Your task to perform on an android device: Open Maps and search for coffee Image 0: 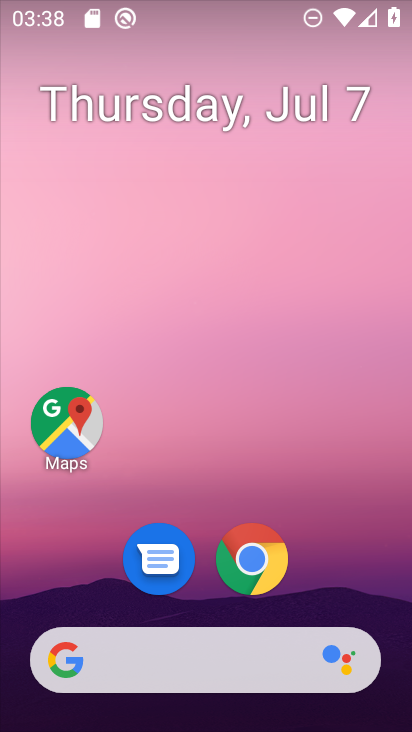
Step 0: drag from (378, 581) to (378, 189)
Your task to perform on an android device: Open Maps and search for coffee Image 1: 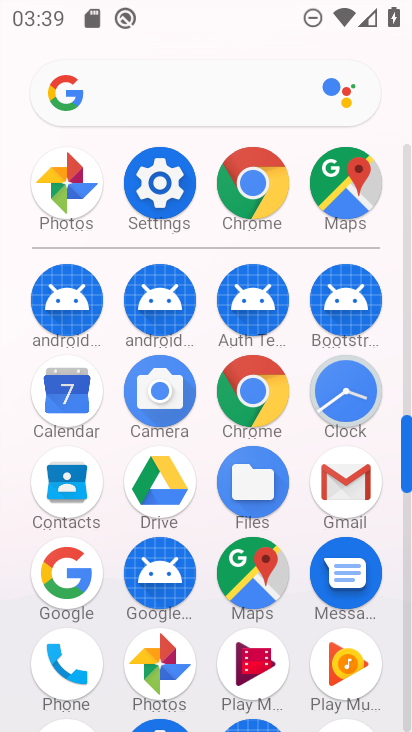
Step 1: click (251, 574)
Your task to perform on an android device: Open Maps and search for coffee Image 2: 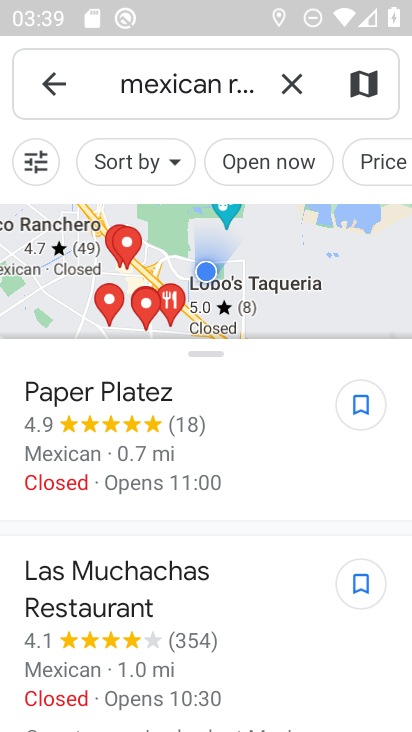
Step 2: press back button
Your task to perform on an android device: Open Maps and search for coffee Image 3: 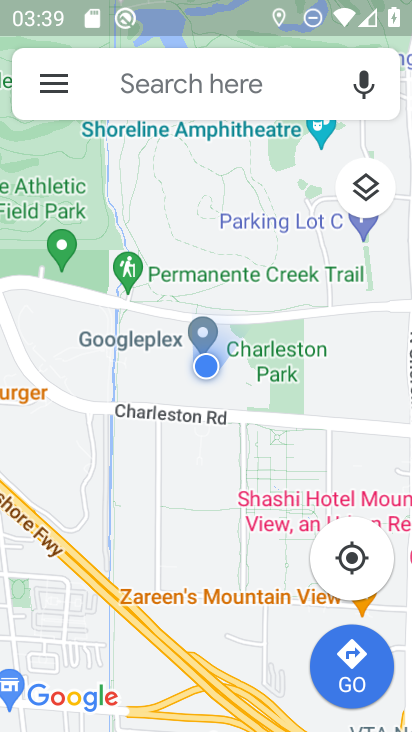
Step 3: click (184, 104)
Your task to perform on an android device: Open Maps and search for coffee Image 4: 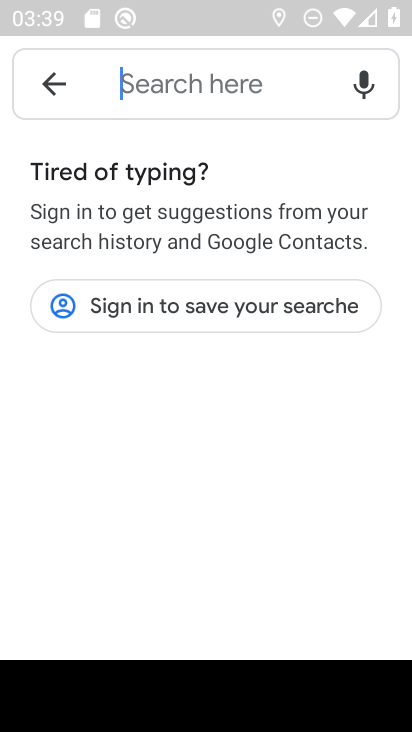
Step 4: type "coffee"
Your task to perform on an android device: Open Maps and search for coffee Image 5: 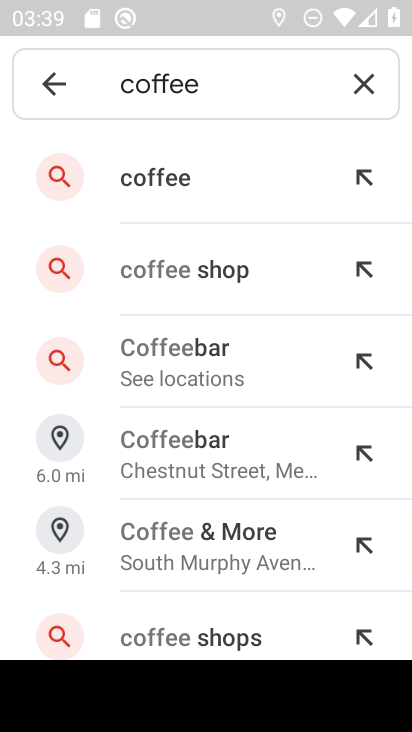
Step 5: click (246, 193)
Your task to perform on an android device: Open Maps and search for coffee Image 6: 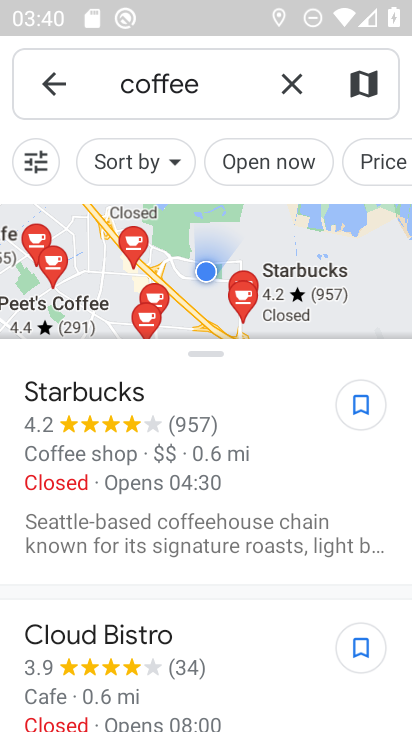
Step 6: task complete